Your task to perform on an android device: set an alarm Image 0: 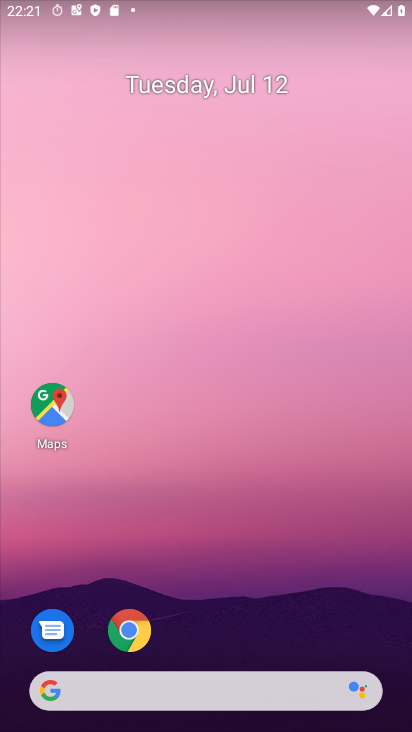
Step 0: click (335, 629)
Your task to perform on an android device: set an alarm Image 1: 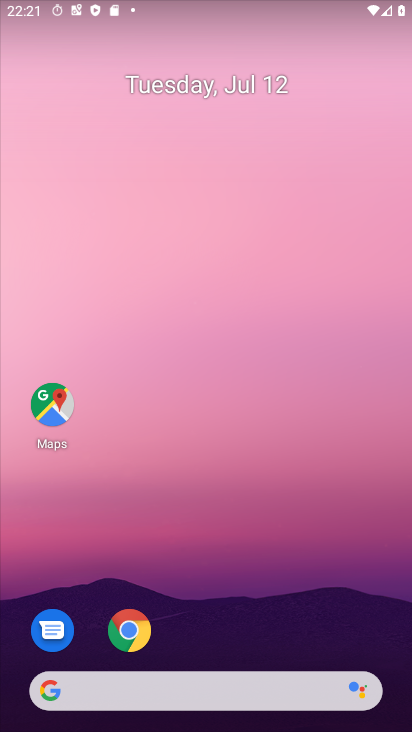
Step 1: drag from (304, 641) to (325, 0)
Your task to perform on an android device: set an alarm Image 2: 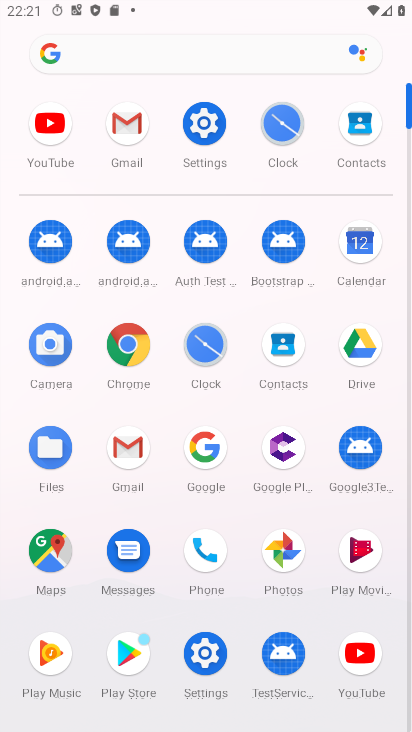
Step 2: click (216, 351)
Your task to perform on an android device: set an alarm Image 3: 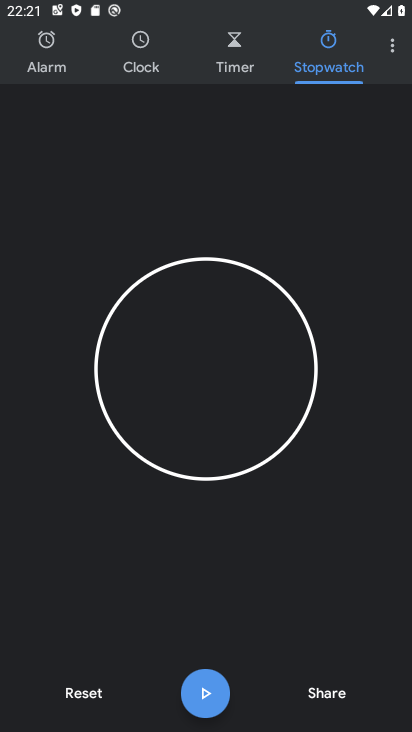
Step 3: click (46, 53)
Your task to perform on an android device: set an alarm Image 4: 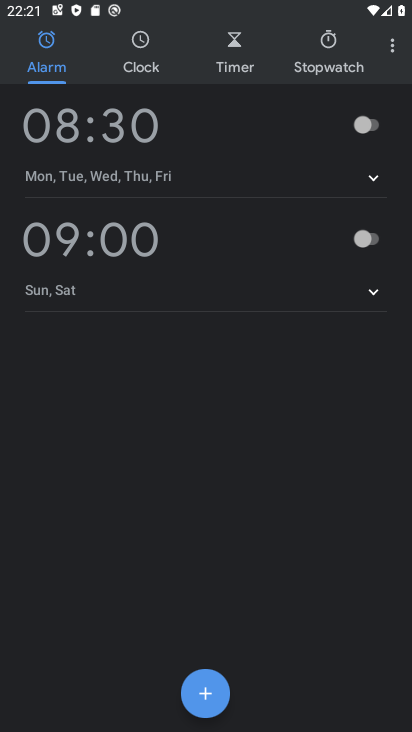
Step 4: click (374, 121)
Your task to perform on an android device: set an alarm Image 5: 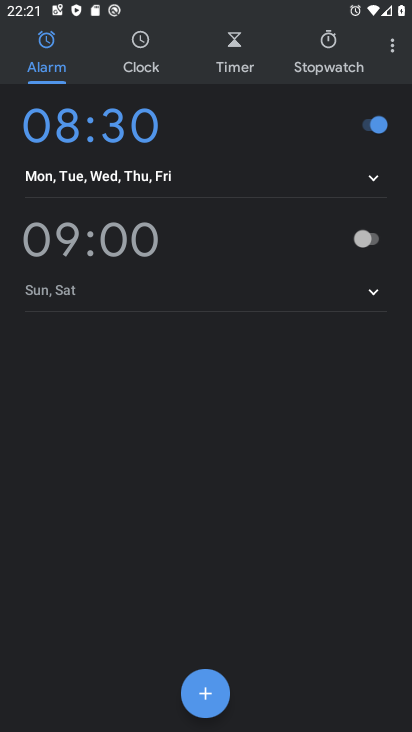
Step 5: task complete